Your task to perform on an android device: Check the news Image 0: 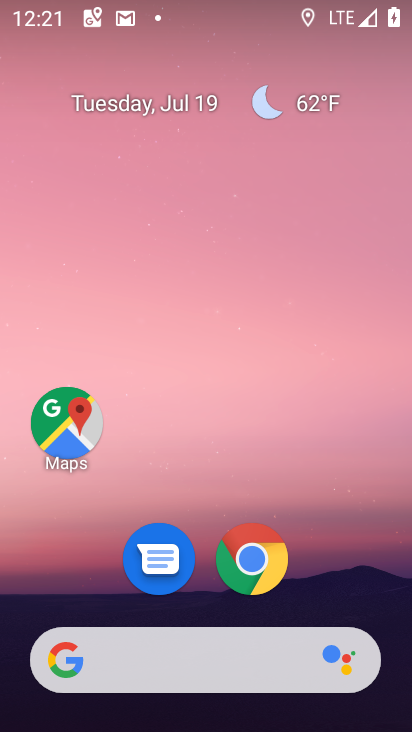
Step 0: click (218, 179)
Your task to perform on an android device: Check the news Image 1: 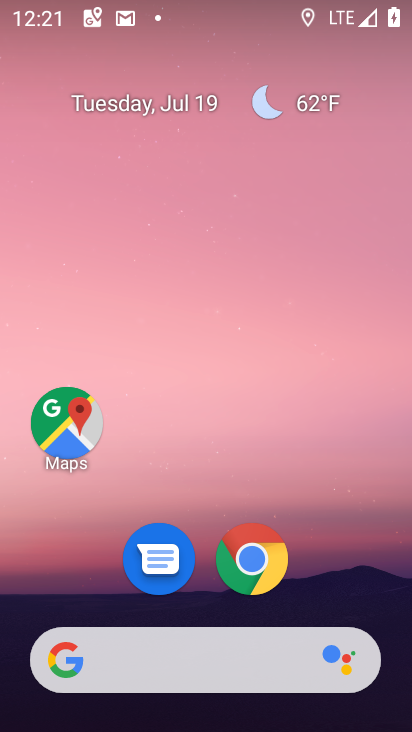
Step 1: drag from (166, 612) to (272, 127)
Your task to perform on an android device: Check the news Image 2: 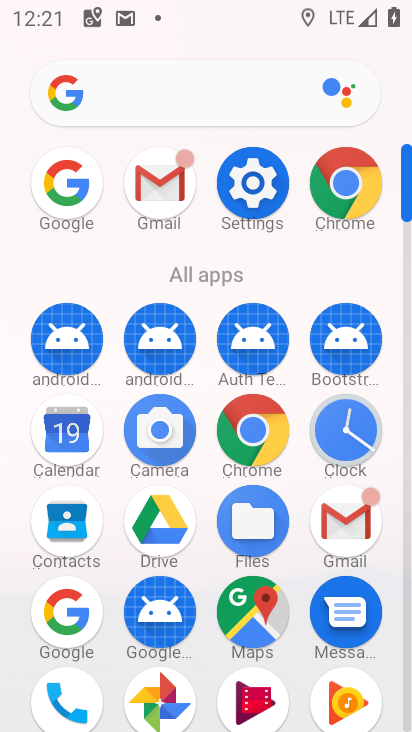
Step 2: click (66, 607)
Your task to perform on an android device: Check the news Image 3: 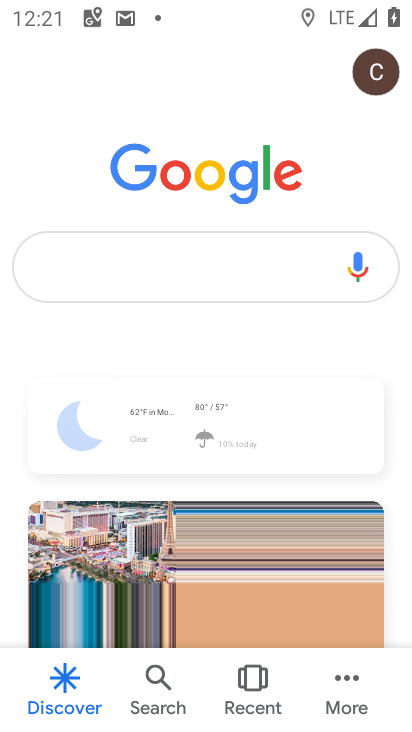
Step 3: click (152, 253)
Your task to perform on an android device: Check the news Image 4: 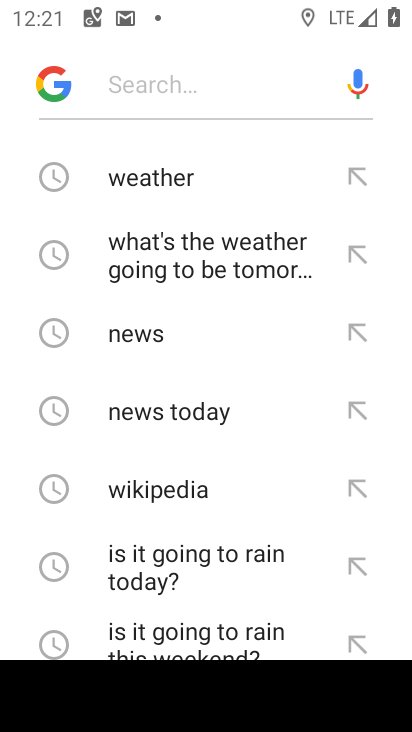
Step 4: click (182, 338)
Your task to perform on an android device: Check the news Image 5: 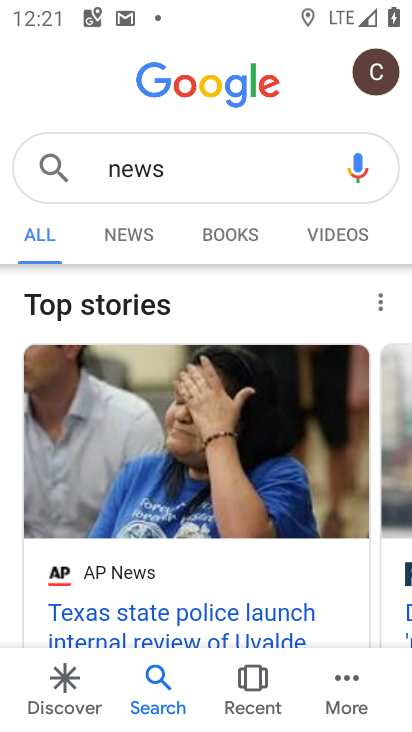
Step 5: click (127, 248)
Your task to perform on an android device: Check the news Image 6: 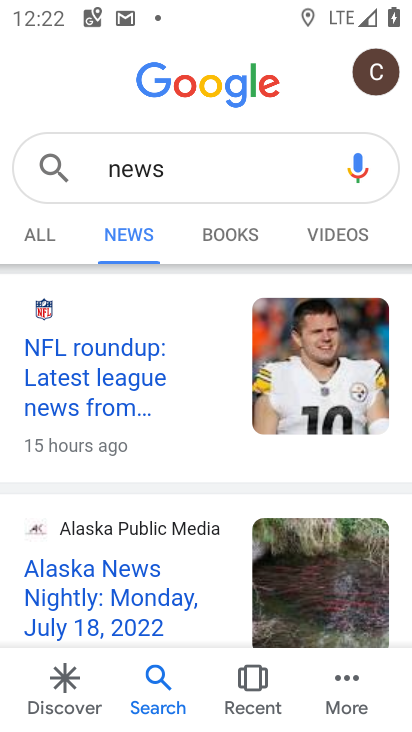
Step 6: task complete